Your task to perform on an android device: Go to wifi settings Image 0: 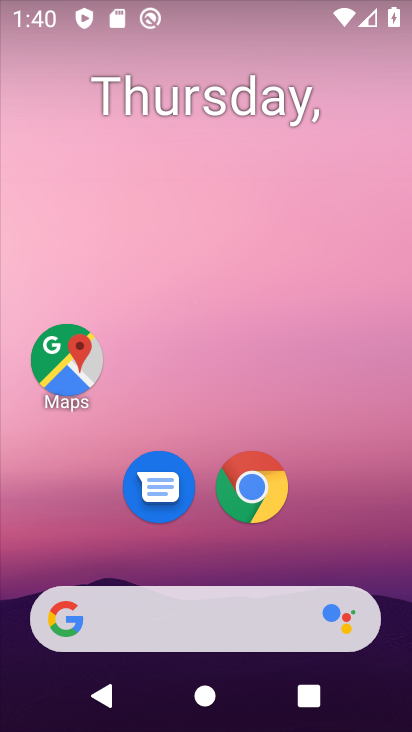
Step 0: drag from (201, 569) to (236, 53)
Your task to perform on an android device: Go to wifi settings Image 1: 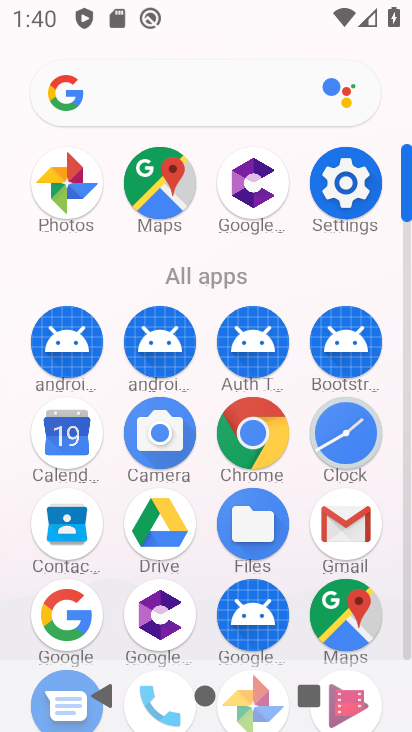
Step 1: click (340, 191)
Your task to perform on an android device: Go to wifi settings Image 2: 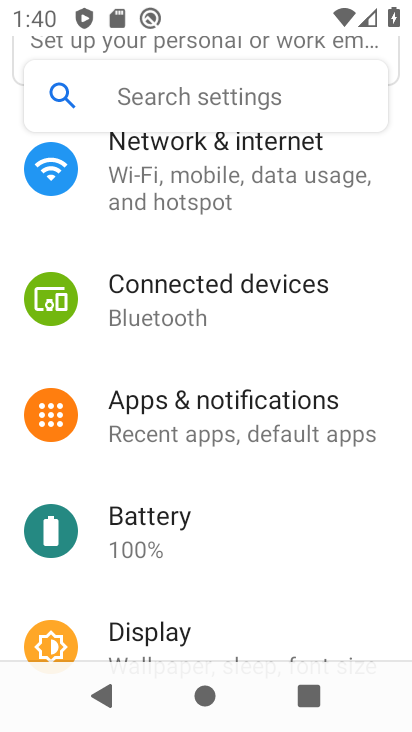
Step 2: click (267, 155)
Your task to perform on an android device: Go to wifi settings Image 3: 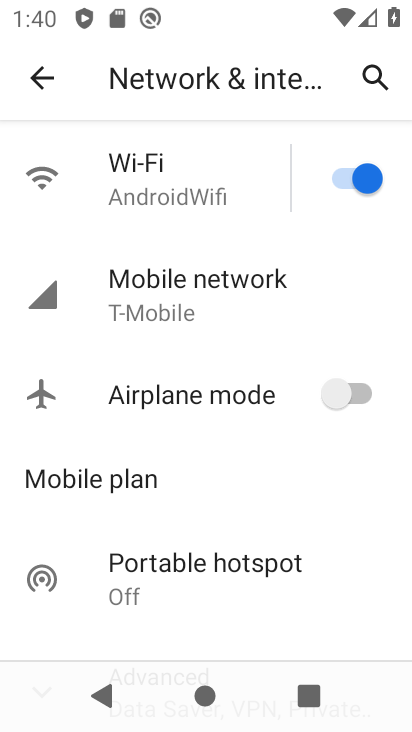
Step 3: click (30, 176)
Your task to perform on an android device: Go to wifi settings Image 4: 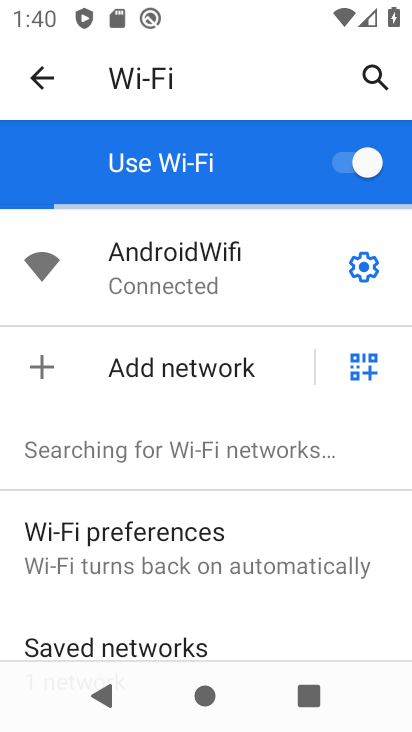
Step 4: task complete